Your task to perform on an android device: Go to Maps Image 0: 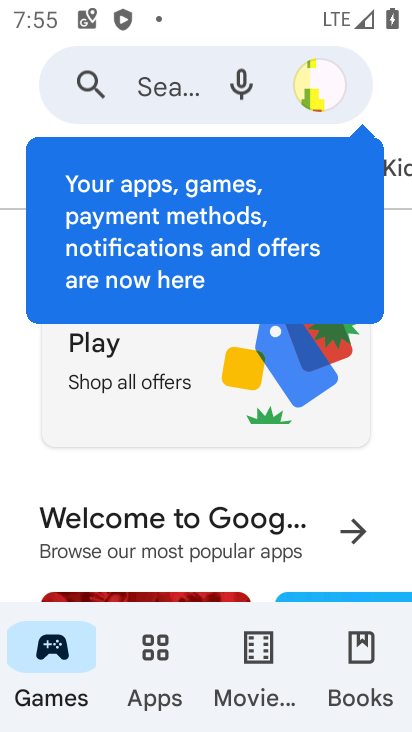
Step 0: press home button
Your task to perform on an android device: Go to Maps Image 1: 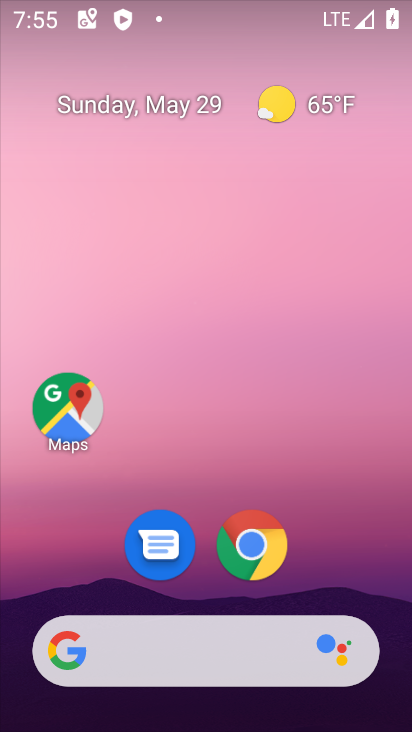
Step 1: click (62, 409)
Your task to perform on an android device: Go to Maps Image 2: 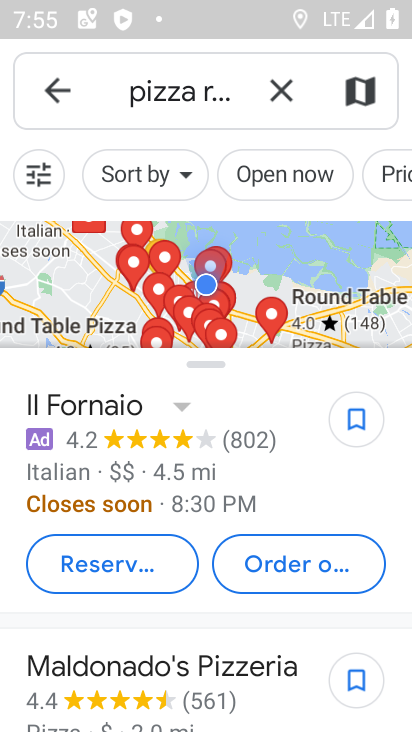
Step 2: task complete